Your task to perform on an android device: Open Chrome and go to settings Image 0: 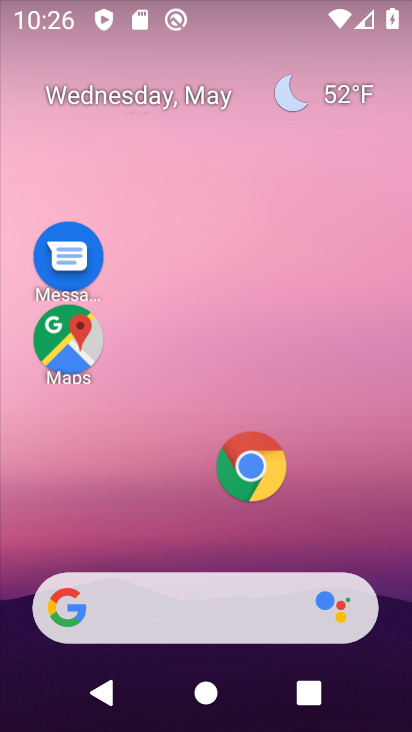
Step 0: click (250, 465)
Your task to perform on an android device: Open Chrome and go to settings Image 1: 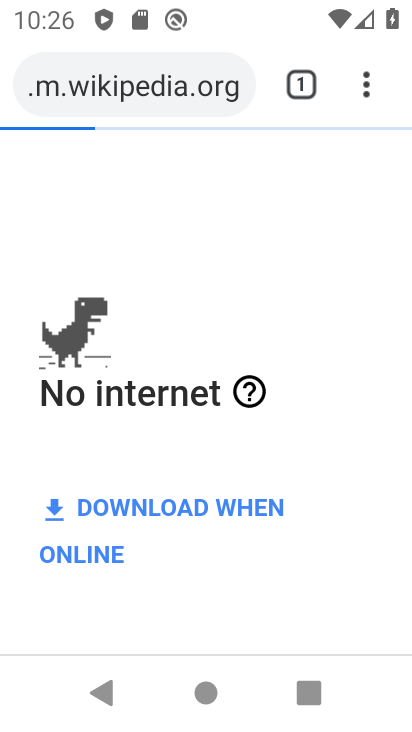
Step 1: click (359, 73)
Your task to perform on an android device: Open Chrome and go to settings Image 2: 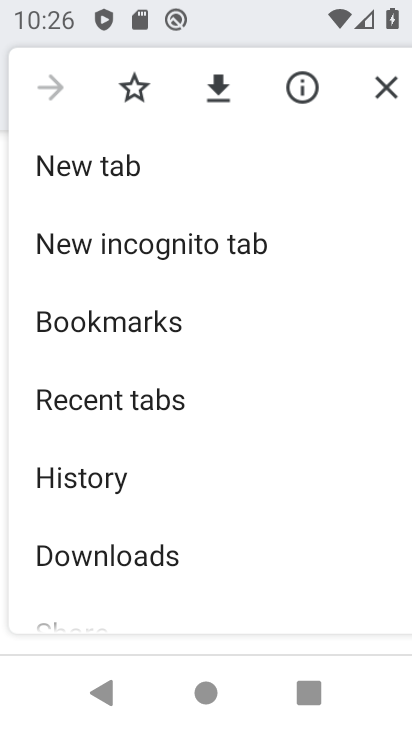
Step 2: drag from (162, 534) to (212, 118)
Your task to perform on an android device: Open Chrome and go to settings Image 3: 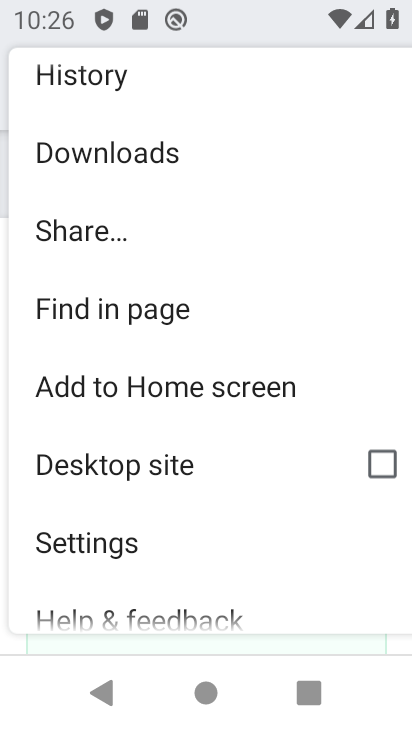
Step 3: click (71, 555)
Your task to perform on an android device: Open Chrome and go to settings Image 4: 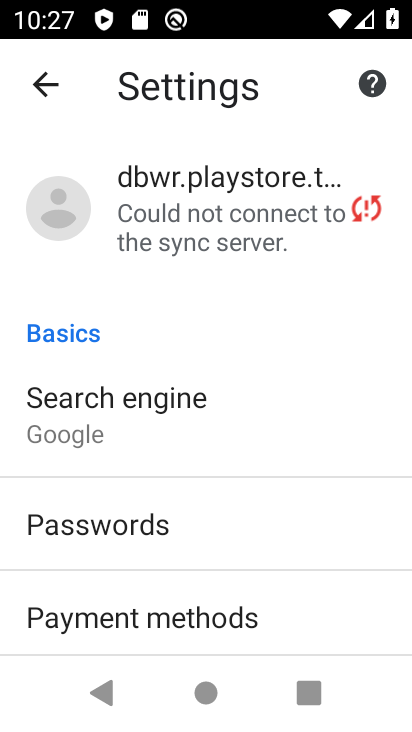
Step 4: task complete